Your task to perform on an android device: Open notification settings Image 0: 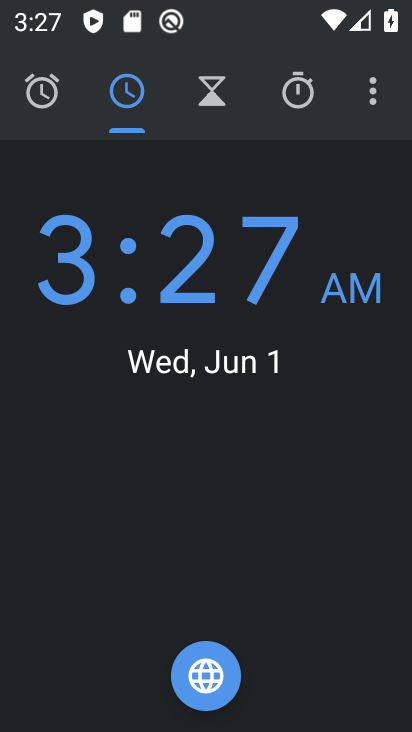
Step 0: press home button
Your task to perform on an android device: Open notification settings Image 1: 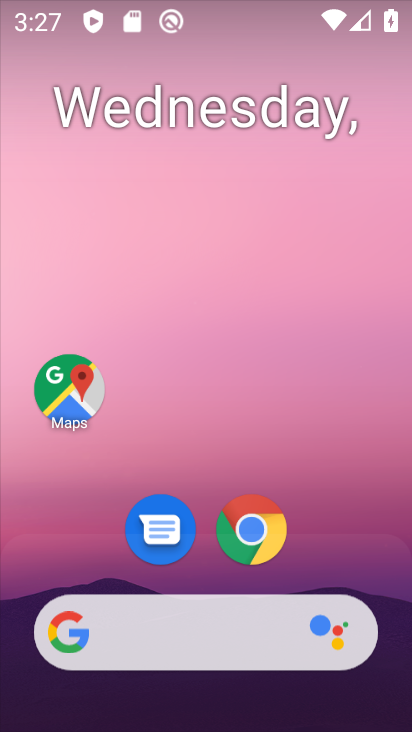
Step 1: drag from (258, 16) to (191, 730)
Your task to perform on an android device: Open notification settings Image 2: 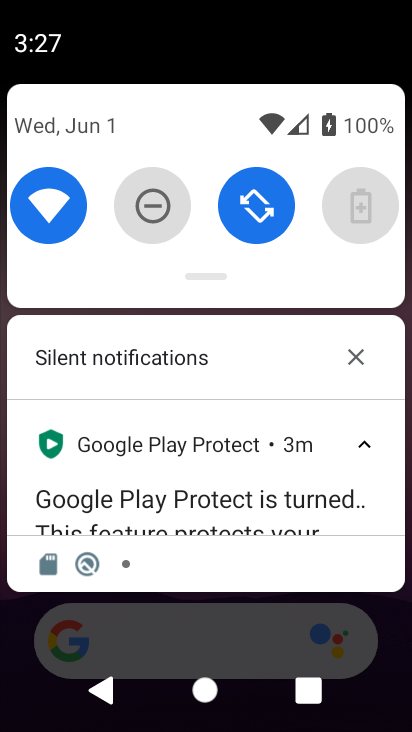
Step 2: drag from (186, 274) to (199, 731)
Your task to perform on an android device: Open notification settings Image 3: 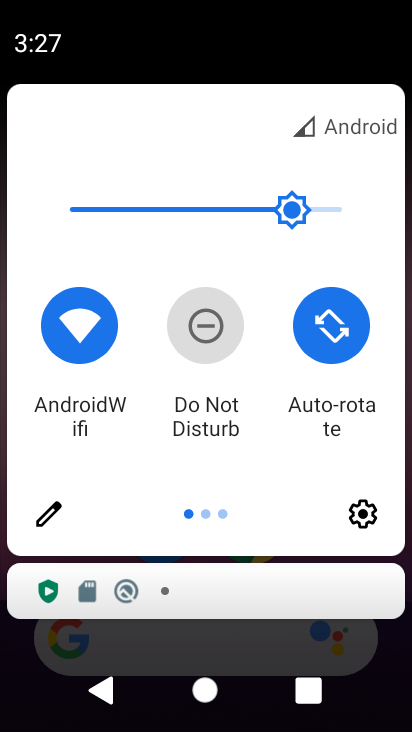
Step 3: click (362, 512)
Your task to perform on an android device: Open notification settings Image 4: 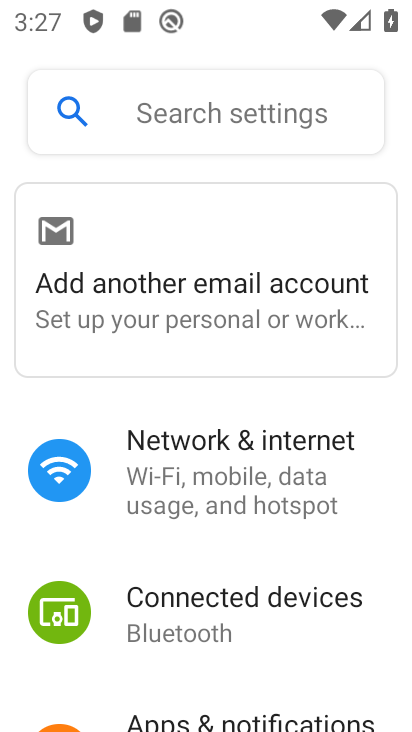
Step 4: click (296, 713)
Your task to perform on an android device: Open notification settings Image 5: 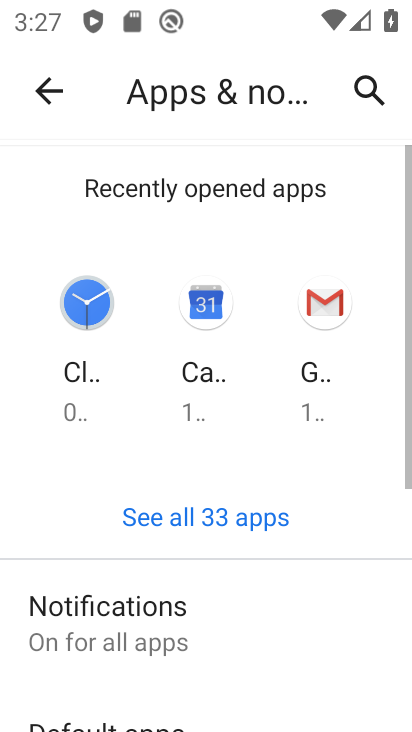
Step 5: click (182, 609)
Your task to perform on an android device: Open notification settings Image 6: 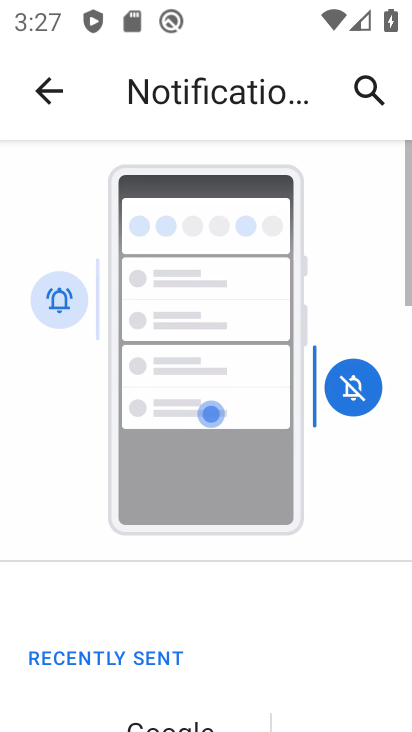
Step 6: task complete